Your task to perform on an android device: Go to sound settings Image 0: 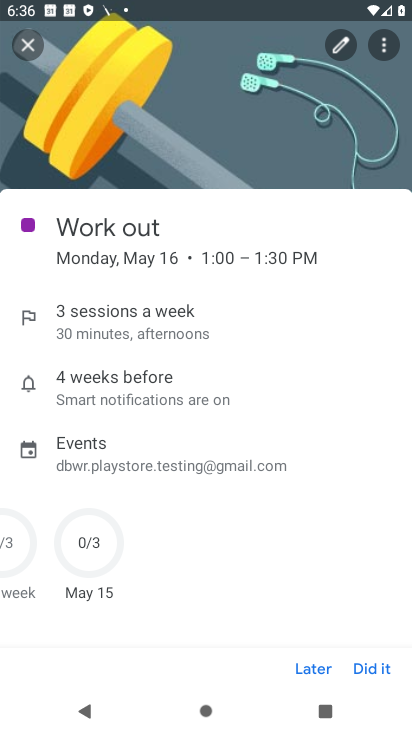
Step 0: press home button
Your task to perform on an android device: Go to sound settings Image 1: 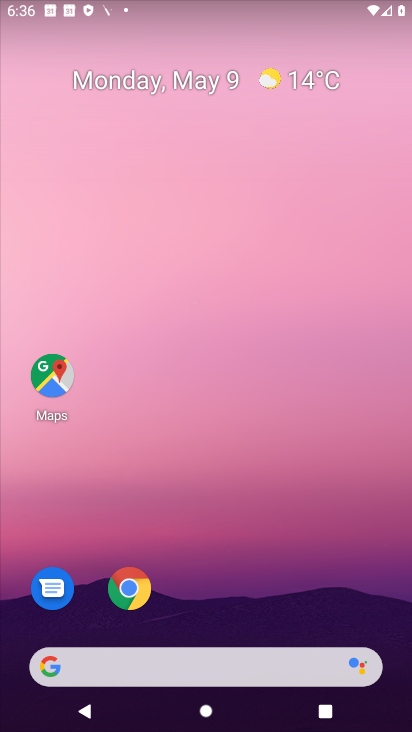
Step 1: drag from (330, 622) to (265, 16)
Your task to perform on an android device: Go to sound settings Image 2: 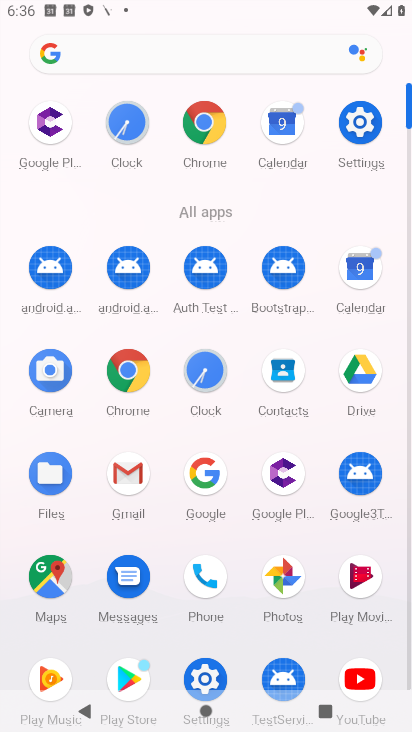
Step 2: click (370, 123)
Your task to perform on an android device: Go to sound settings Image 3: 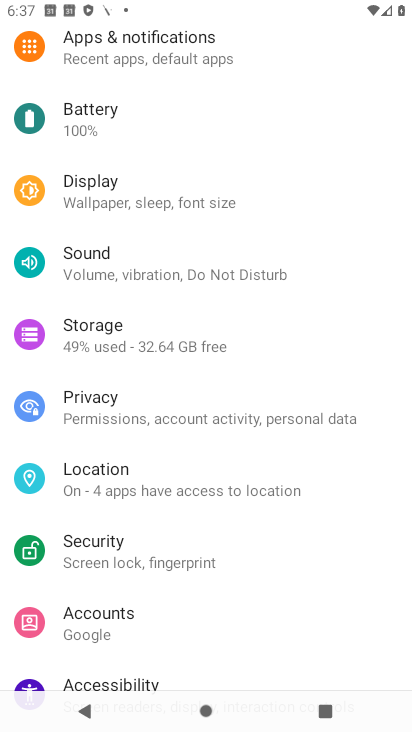
Step 3: click (161, 258)
Your task to perform on an android device: Go to sound settings Image 4: 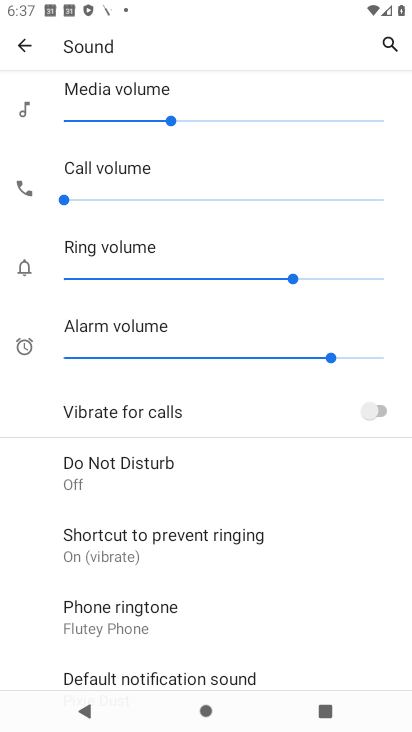
Step 4: task complete